Your task to perform on an android device: change the clock style Image 0: 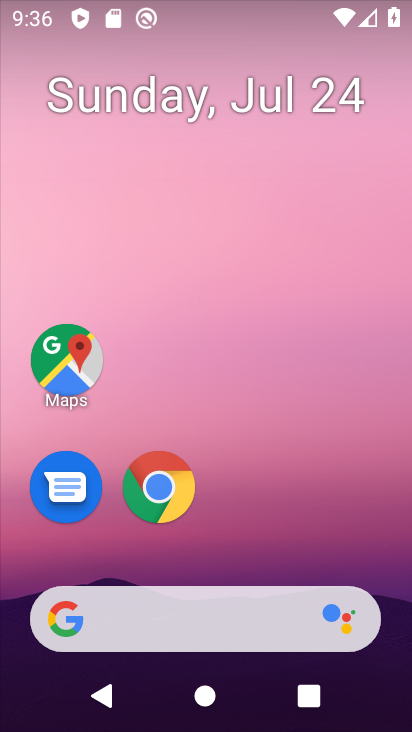
Step 0: drag from (226, 494) to (343, 13)
Your task to perform on an android device: change the clock style Image 1: 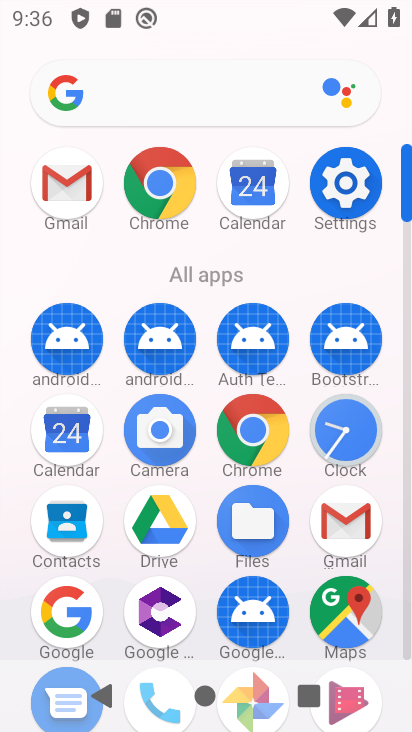
Step 1: click (348, 427)
Your task to perform on an android device: change the clock style Image 2: 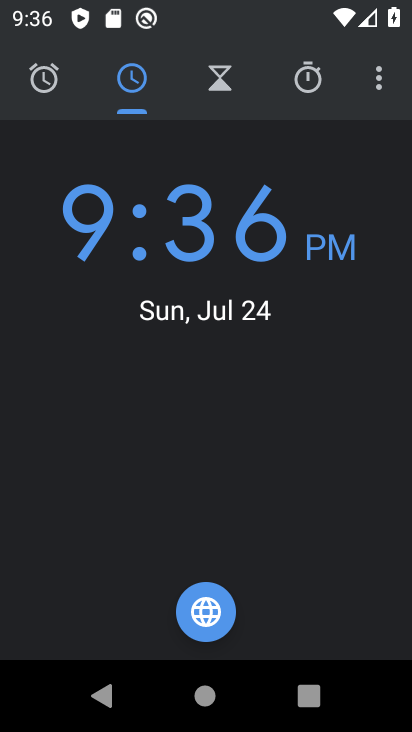
Step 2: click (373, 89)
Your task to perform on an android device: change the clock style Image 3: 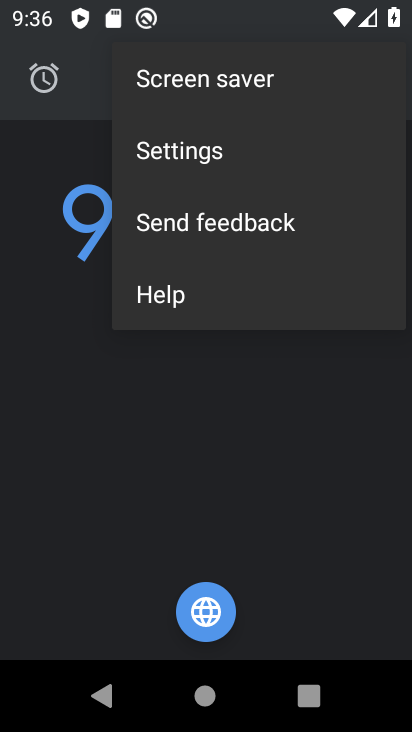
Step 3: click (232, 156)
Your task to perform on an android device: change the clock style Image 4: 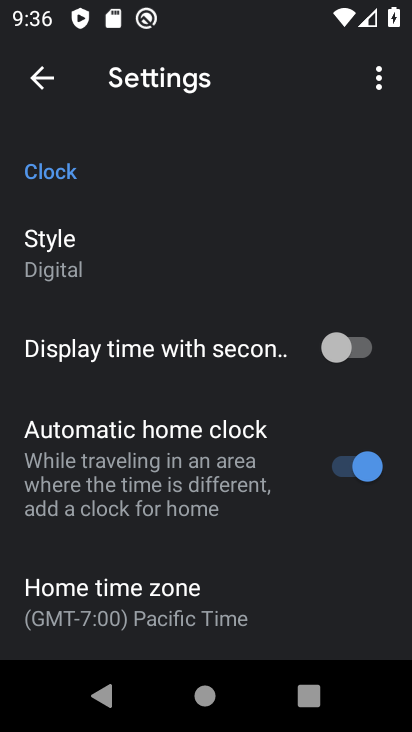
Step 4: click (82, 247)
Your task to perform on an android device: change the clock style Image 5: 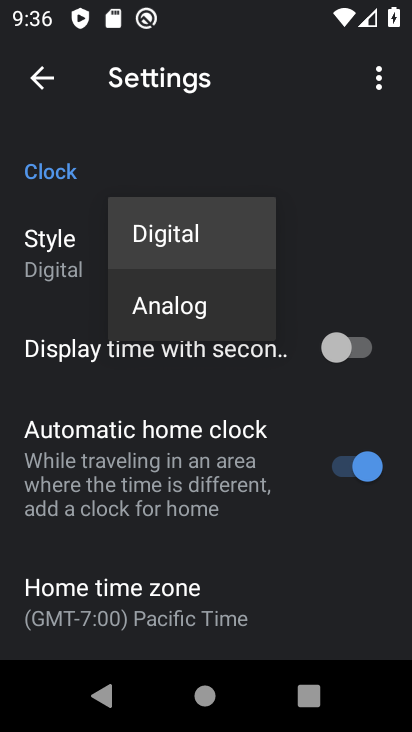
Step 5: click (146, 303)
Your task to perform on an android device: change the clock style Image 6: 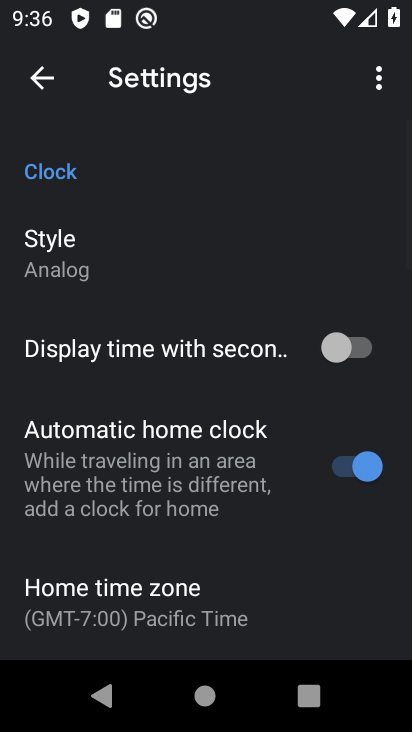
Step 6: task complete